Your task to perform on an android device: Find coffee shops on Maps Image 0: 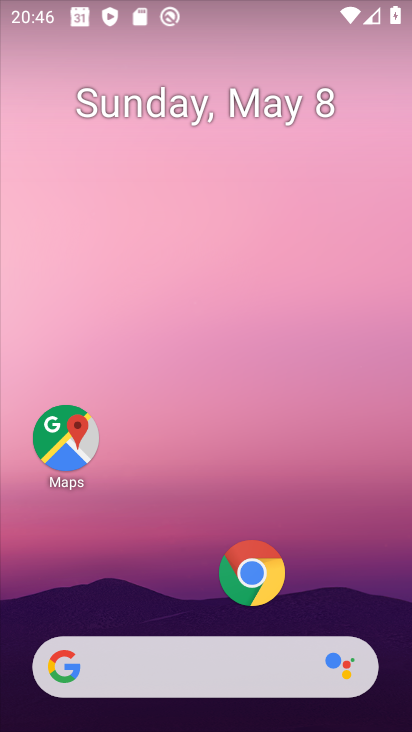
Step 0: click (63, 446)
Your task to perform on an android device: Find coffee shops on Maps Image 1: 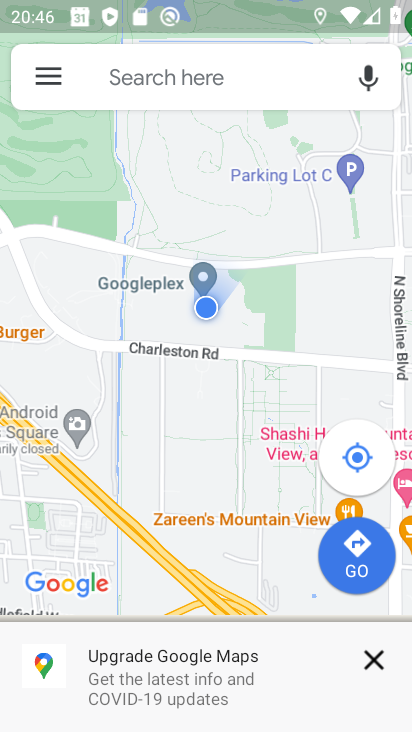
Step 1: click (127, 76)
Your task to perform on an android device: Find coffee shops on Maps Image 2: 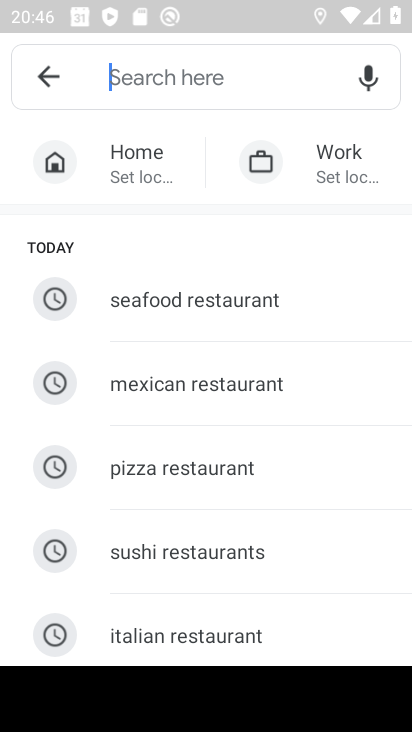
Step 2: type "Find coffee shops on Maps"
Your task to perform on an android device: Find coffee shops on Maps Image 3: 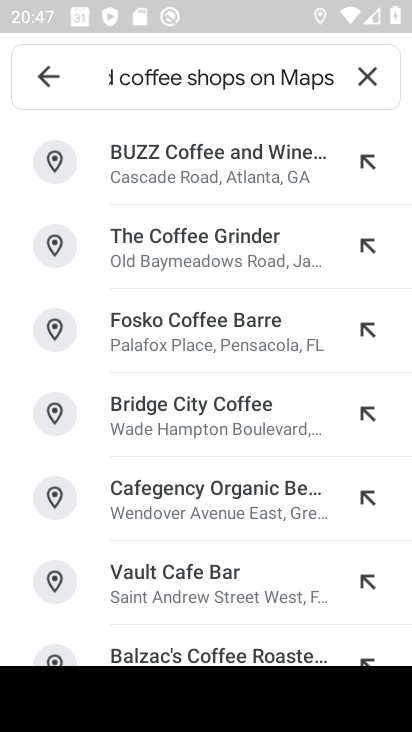
Step 3: click (180, 155)
Your task to perform on an android device: Find coffee shops on Maps Image 4: 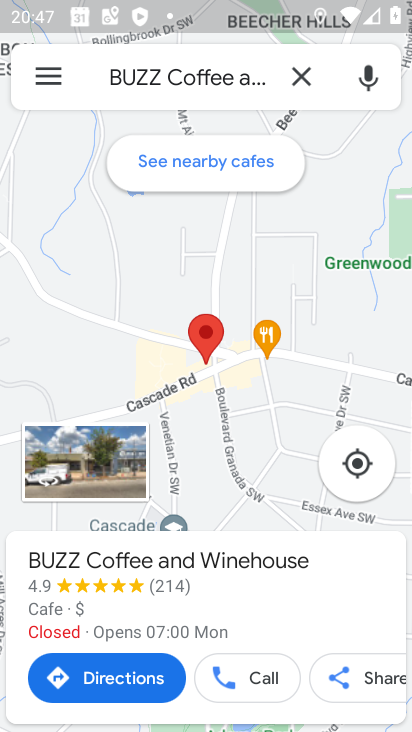
Step 4: task complete